Your task to perform on an android device: Search for vegetarian restaurants on Maps Image 0: 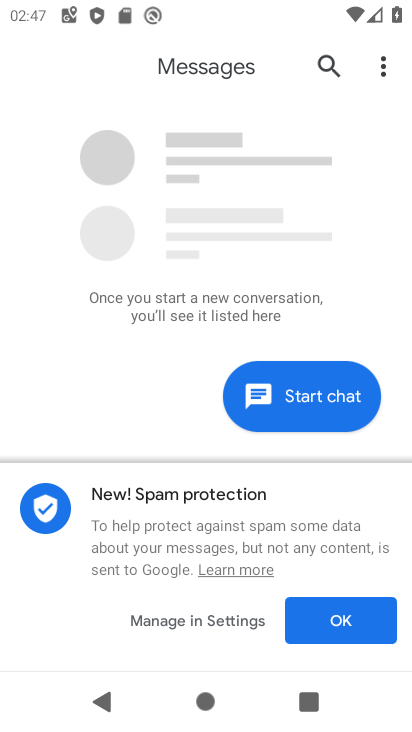
Step 0: press home button
Your task to perform on an android device: Search for vegetarian restaurants on Maps Image 1: 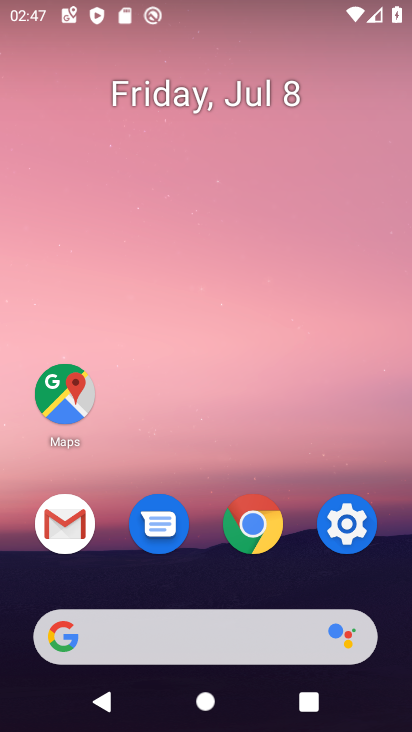
Step 1: click (57, 412)
Your task to perform on an android device: Search for vegetarian restaurants on Maps Image 2: 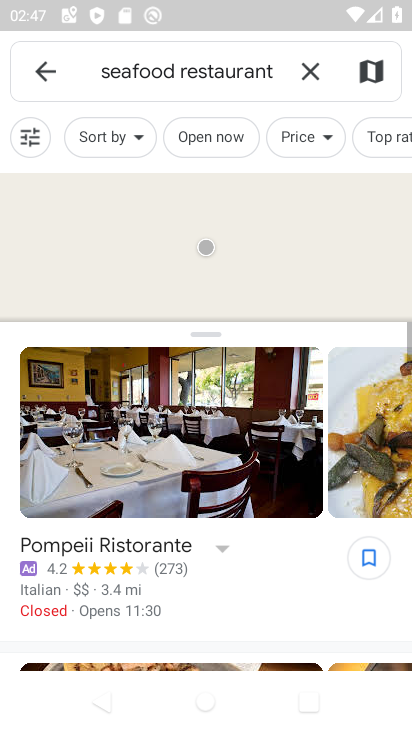
Step 2: click (302, 67)
Your task to perform on an android device: Search for vegetarian restaurants on Maps Image 3: 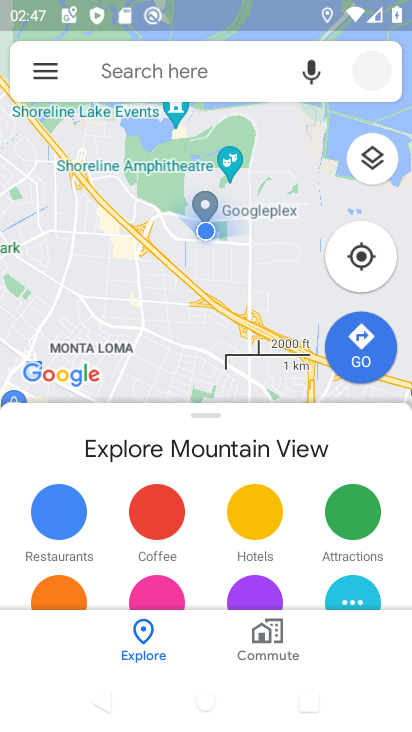
Step 3: click (206, 66)
Your task to perform on an android device: Search for vegetarian restaurants on Maps Image 4: 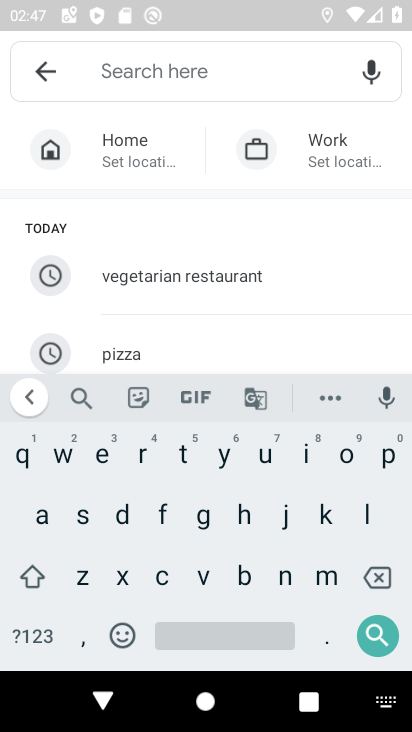
Step 4: click (151, 285)
Your task to perform on an android device: Search for vegetarian restaurants on Maps Image 5: 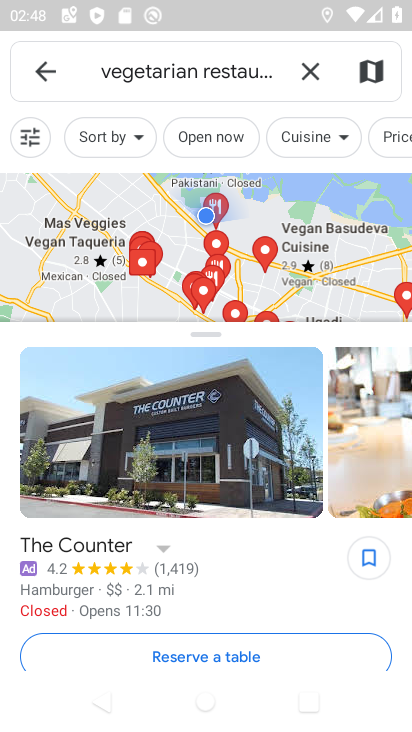
Step 5: task complete